Your task to perform on an android device: Add "bose quietcomfort 35" to the cart on target.com Image 0: 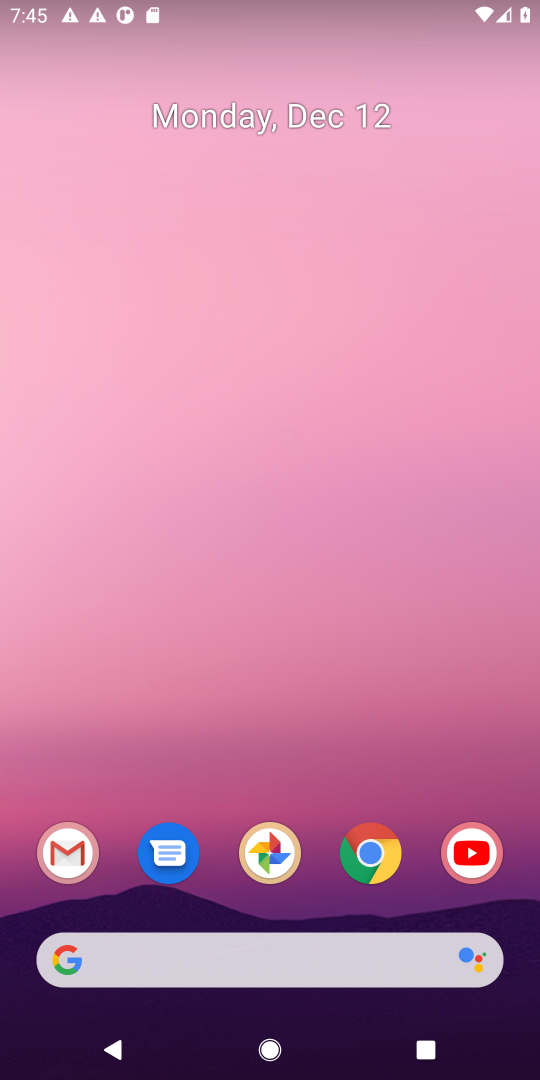
Step 0: click (377, 850)
Your task to perform on an android device: Add "bose quietcomfort 35" to the cart on target.com Image 1: 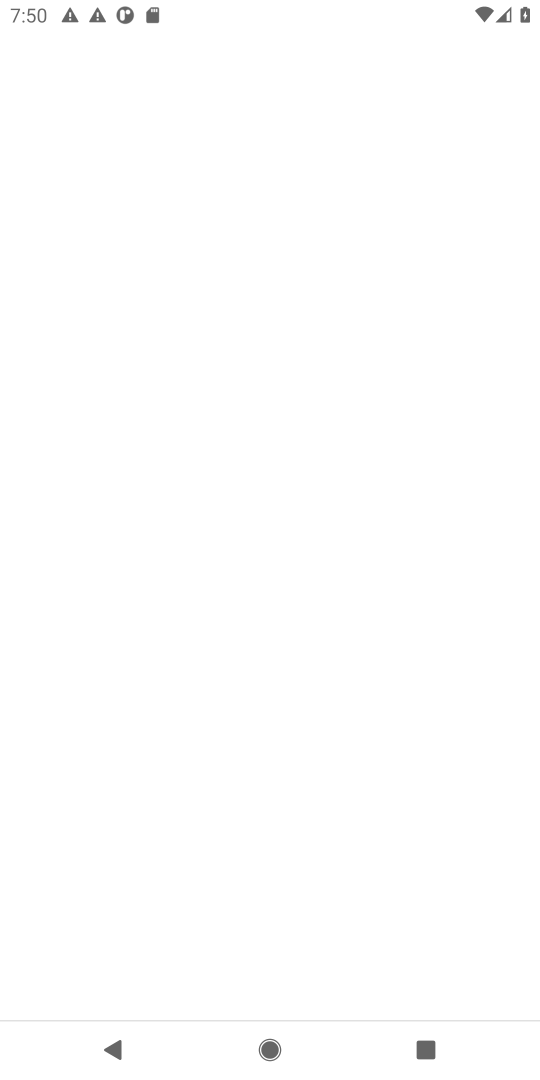
Step 1: task complete